Your task to perform on an android device: Go to eBay Image 0: 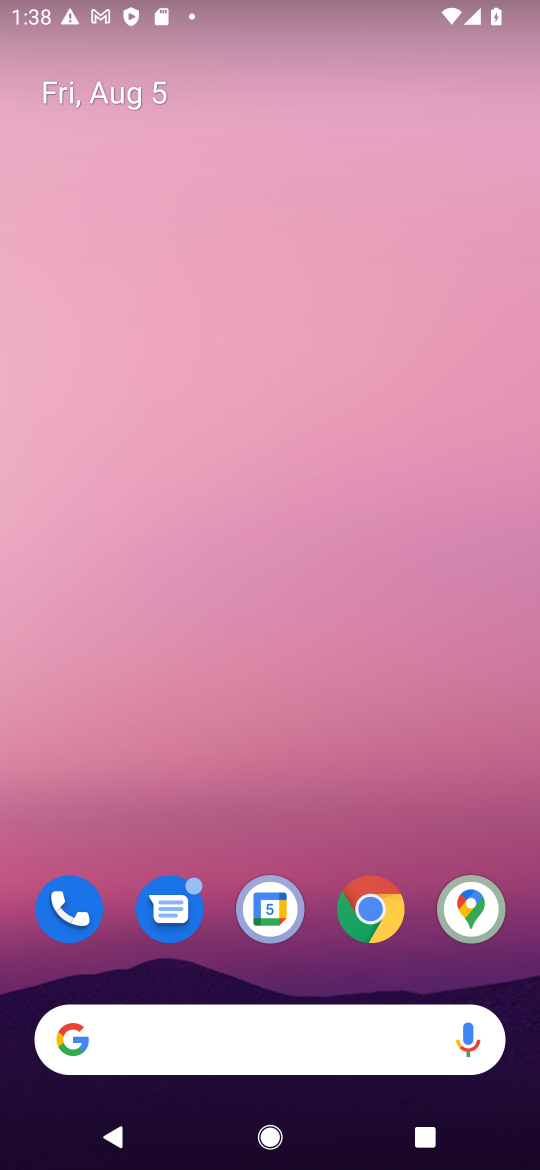
Step 0: click (372, 910)
Your task to perform on an android device: Go to eBay Image 1: 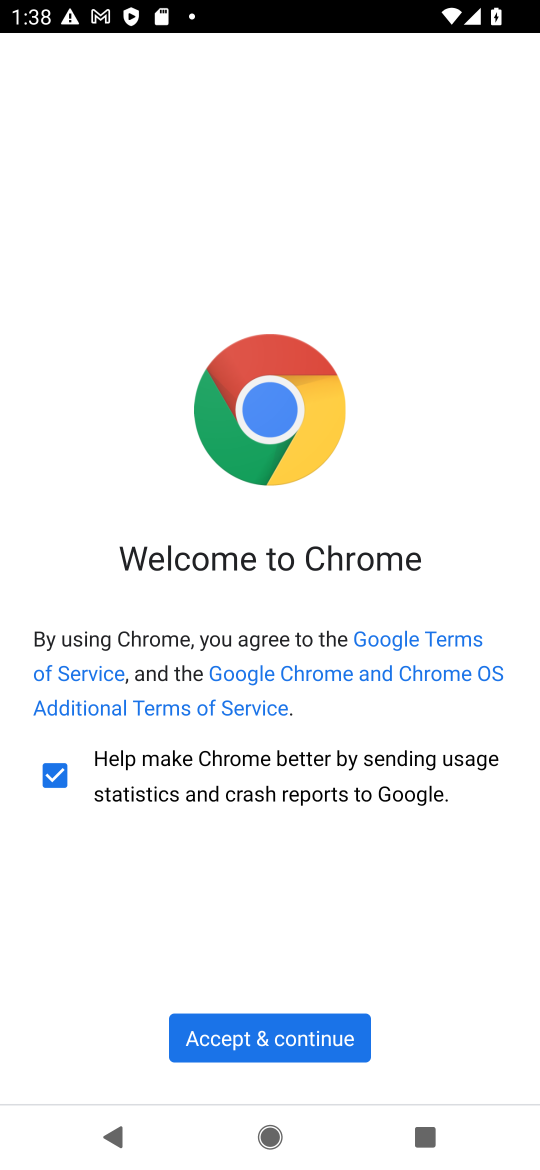
Step 1: click (278, 1031)
Your task to perform on an android device: Go to eBay Image 2: 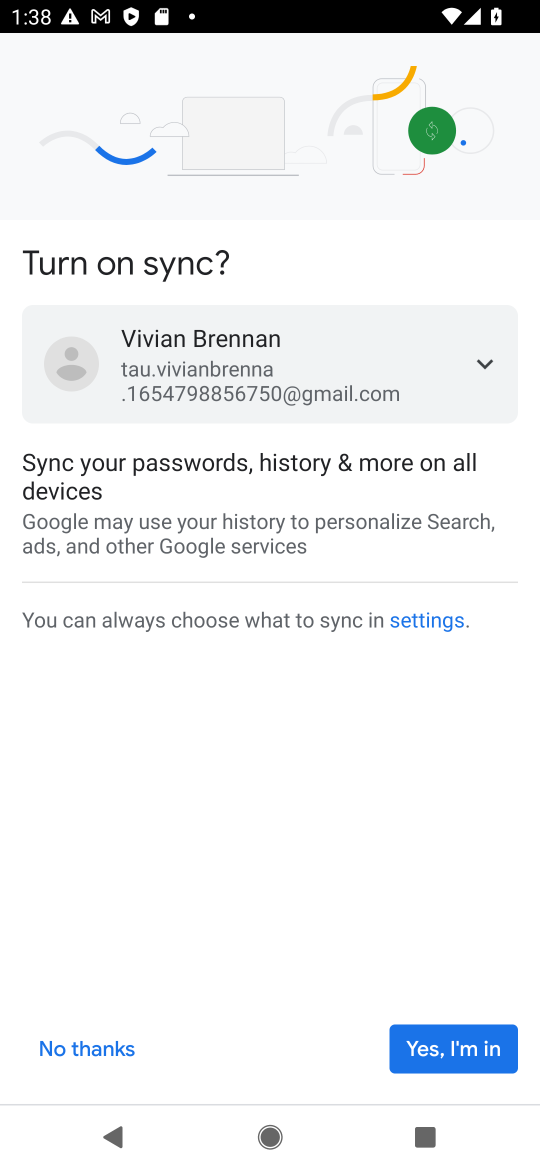
Step 2: click (434, 1042)
Your task to perform on an android device: Go to eBay Image 3: 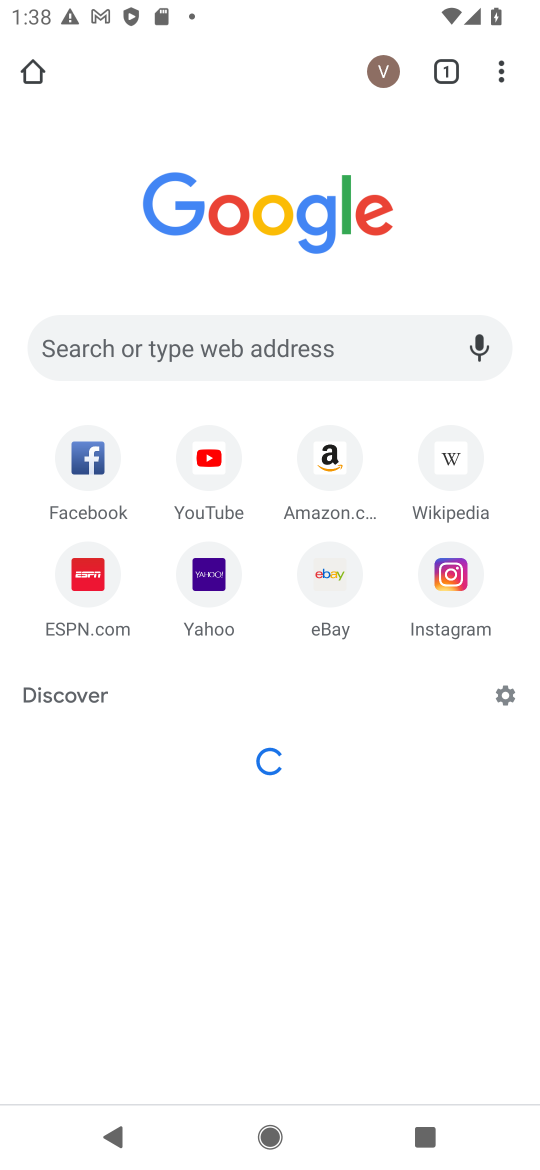
Step 3: click (339, 590)
Your task to perform on an android device: Go to eBay Image 4: 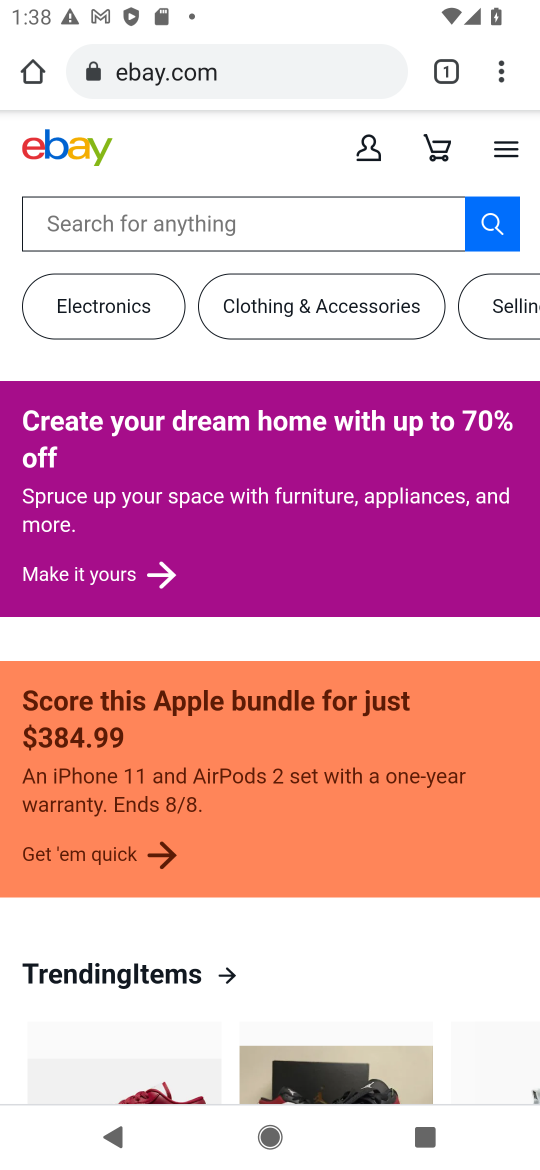
Step 4: task complete